Your task to perform on an android device: remove spam from my inbox in the gmail app Image 0: 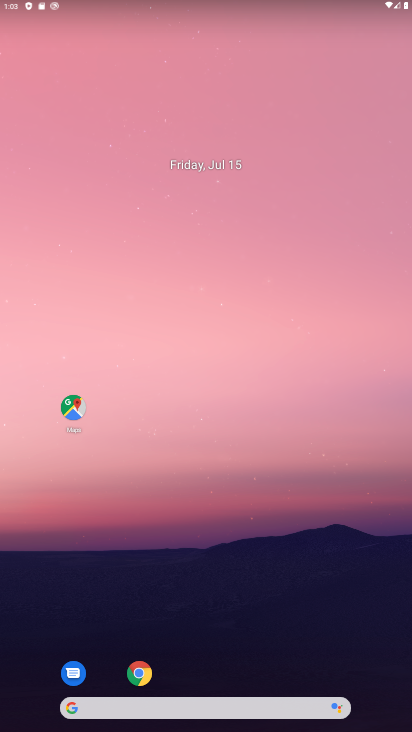
Step 0: drag from (272, 595) to (220, 0)
Your task to perform on an android device: remove spam from my inbox in the gmail app Image 1: 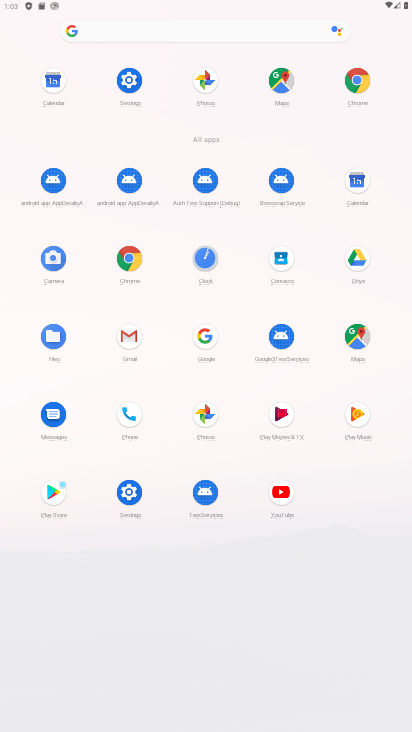
Step 1: click (117, 337)
Your task to perform on an android device: remove spam from my inbox in the gmail app Image 2: 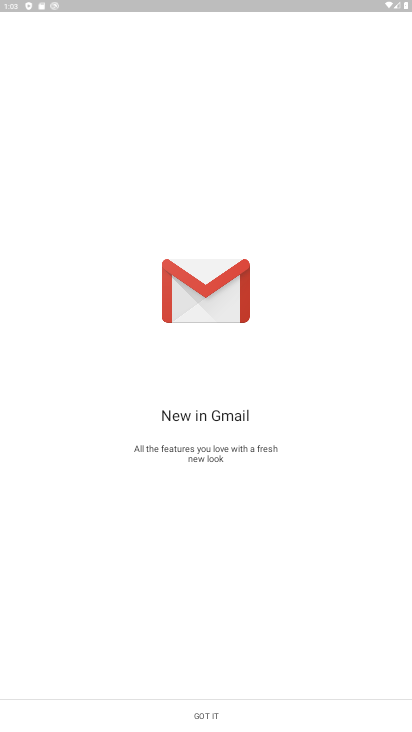
Step 2: click (202, 717)
Your task to perform on an android device: remove spam from my inbox in the gmail app Image 3: 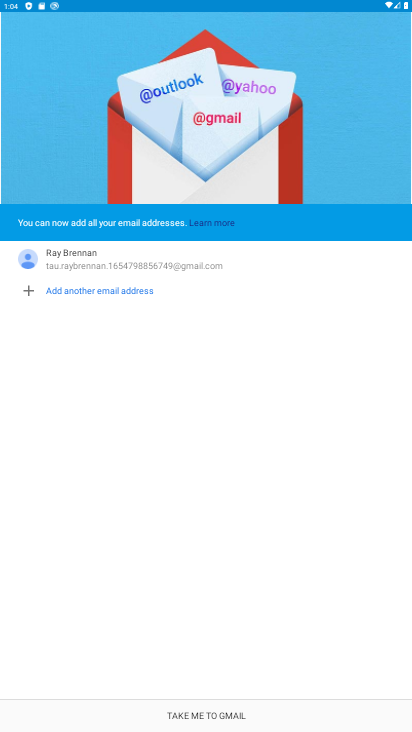
Step 3: click (202, 716)
Your task to perform on an android device: remove spam from my inbox in the gmail app Image 4: 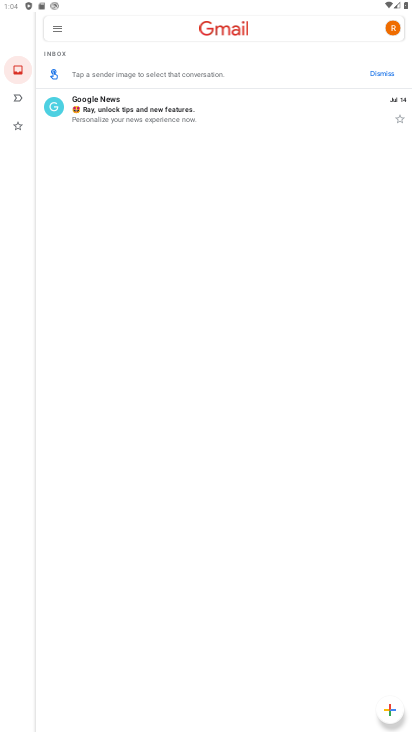
Step 4: click (54, 25)
Your task to perform on an android device: remove spam from my inbox in the gmail app Image 5: 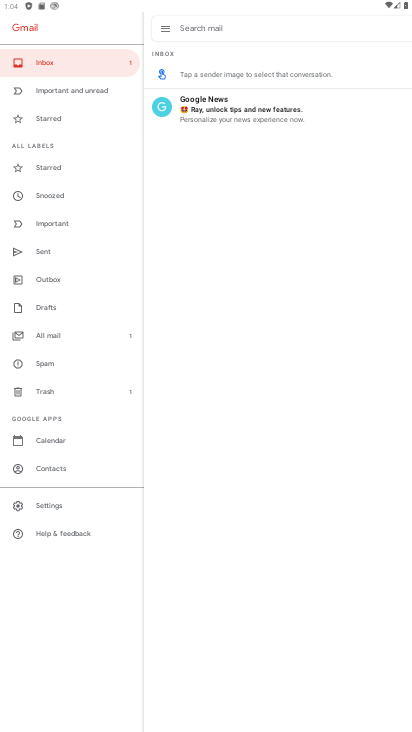
Step 5: click (37, 363)
Your task to perform on an android device: remove spam from my inbox in the gmail app Image 6: 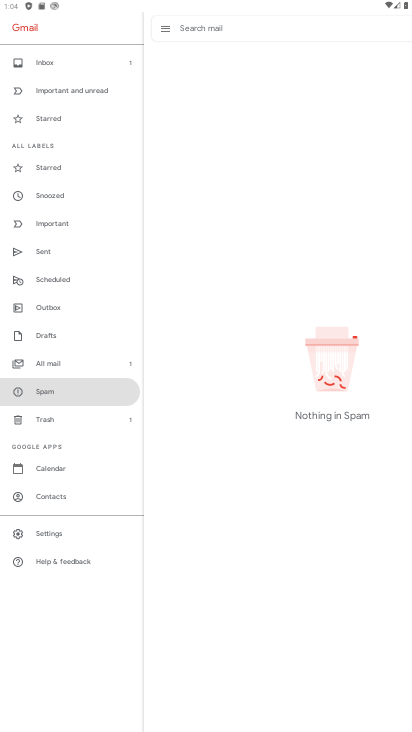
Step 6: task complete